Your task to perform on an android device: uninstall "NewsBreak: Local News & Alerts" Image 0: 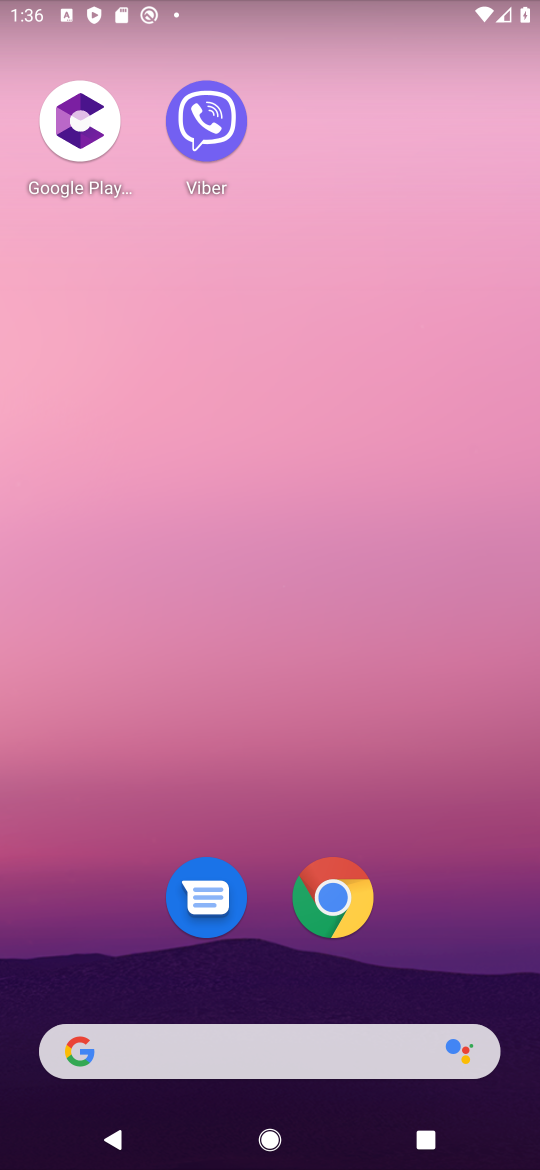
Step 0: drag from (249, 665) to (296, 123)
Your task to perform on an android device: uninstall "NewsBreak: Local News & Alerts" Image 1: 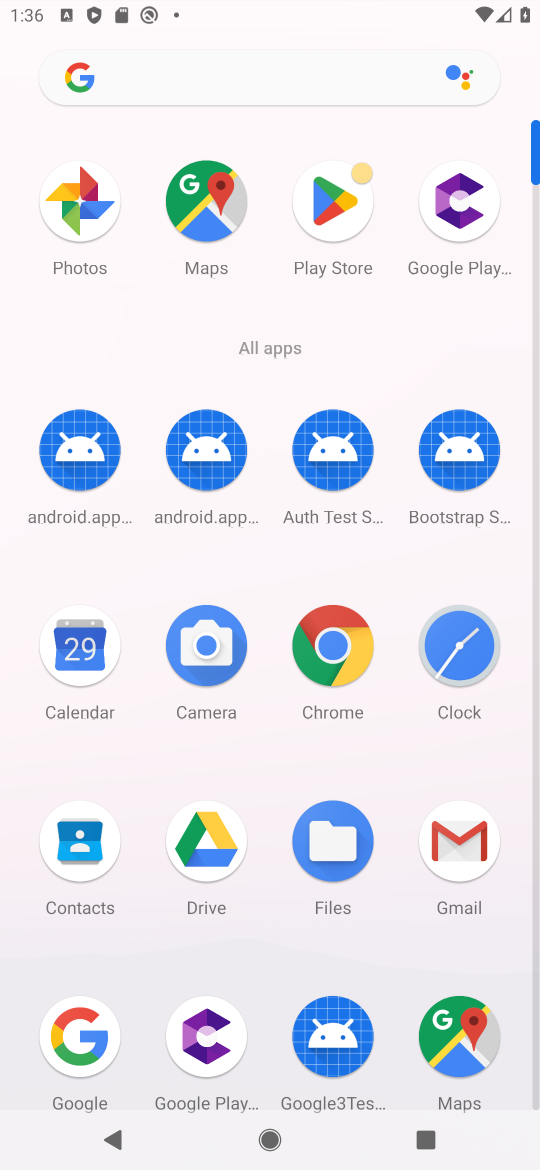
Step 1: drag from (269, 859) to (312, 123)
Your task to perform on an android device: uninstall "NewsBreak: Local News & Alerts" Image 2: 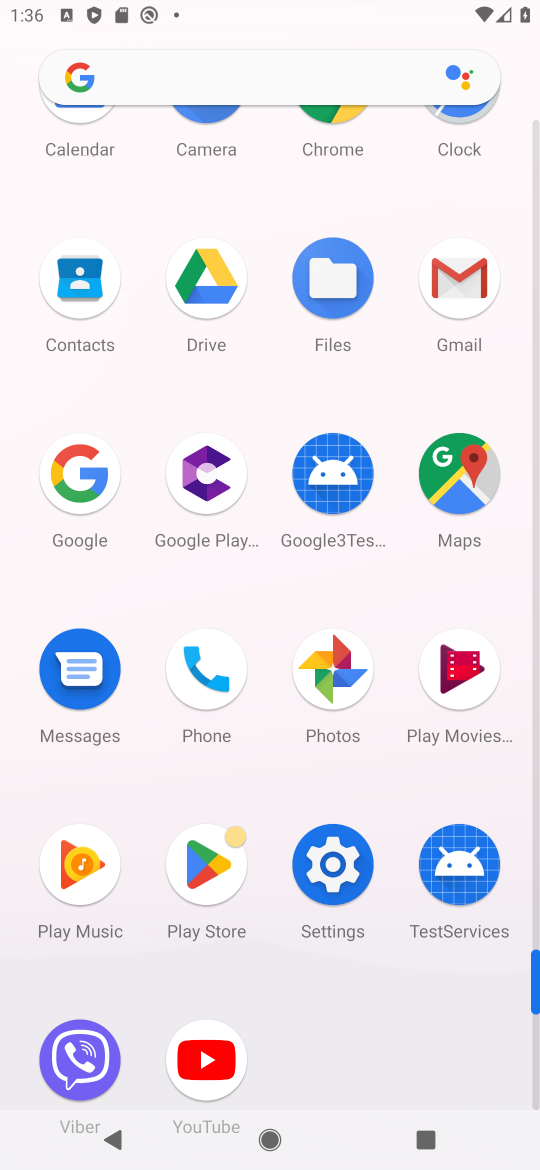
Step 2: drag from (329, 239) to (441, 1122)
Your task to perform on an android device: uninstall "NewsBreak: Local News & Alerts" Image 3: 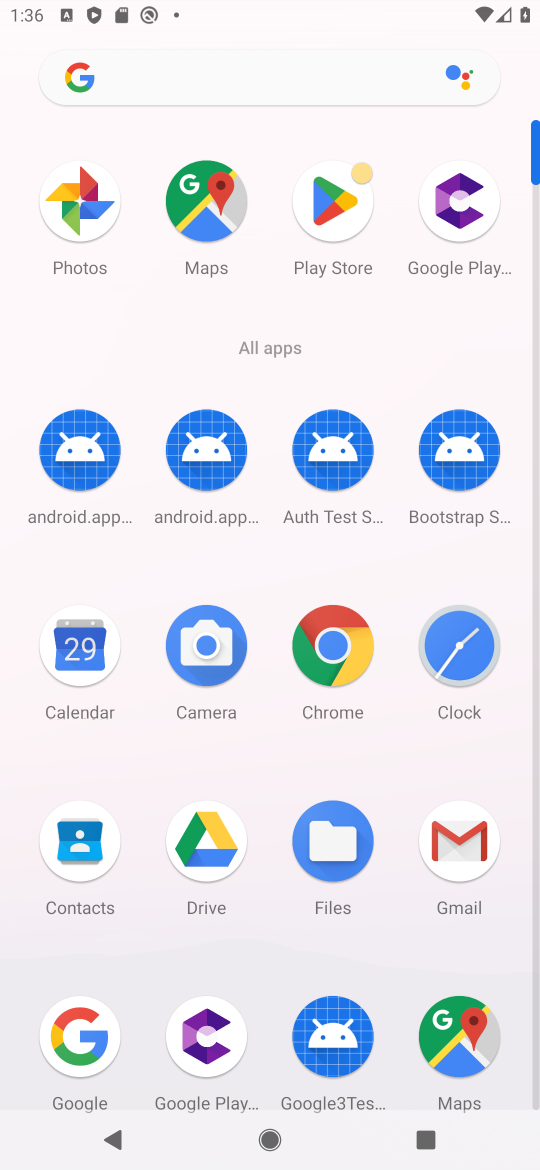
Step 3: drag from (337, 210) to (254, 498)
Your task to perform on an android device: uninstall "NewsBreak: Local News & Alerts" Image 4: 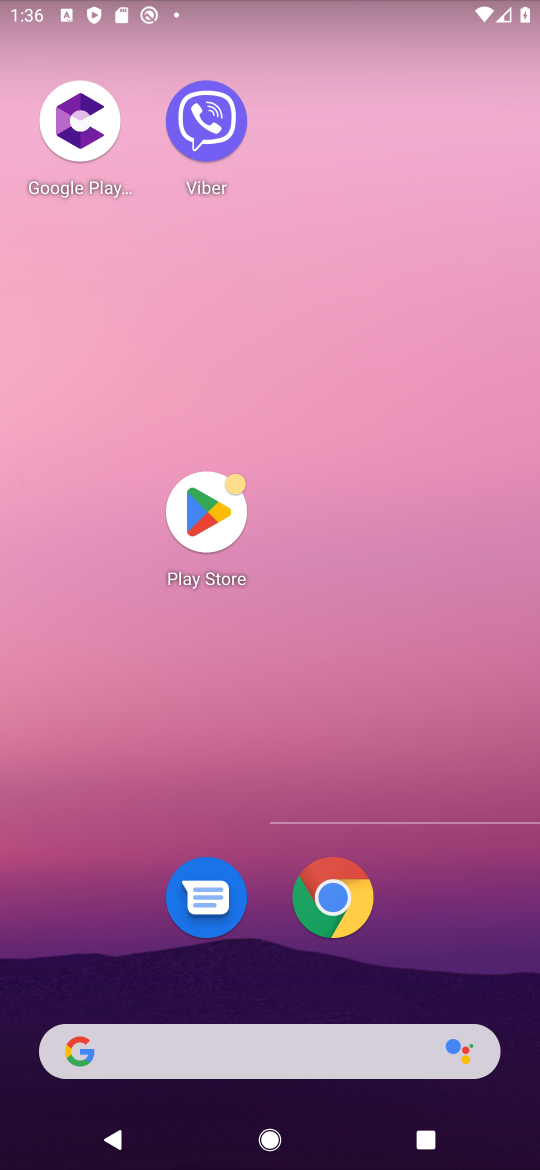
Step 4: click (201, 503)
Your task to perform on an android device: uninstall "NewsBreak: Local News & Alerts" Image 5: 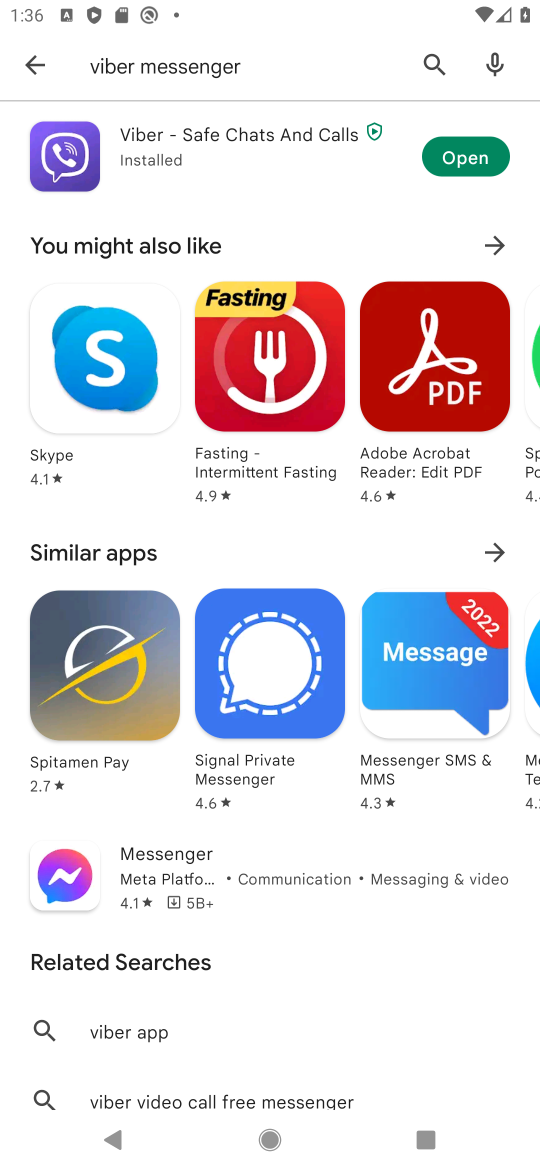
Step 5: click (285, 66)
Your task to perform on an android device: uninstall "NewsBreak: Local News & Alerts" Image 6: 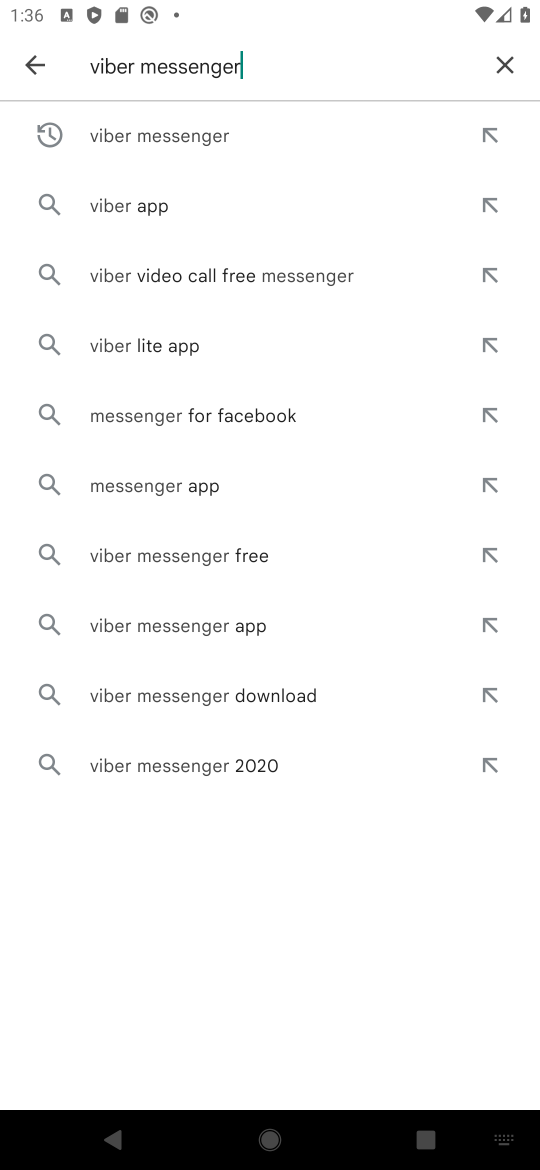
Step 6: click (499, 66)
Your task to perform on an android device: uninstall "NewsBreak: Local News & Alerts" Image 7: 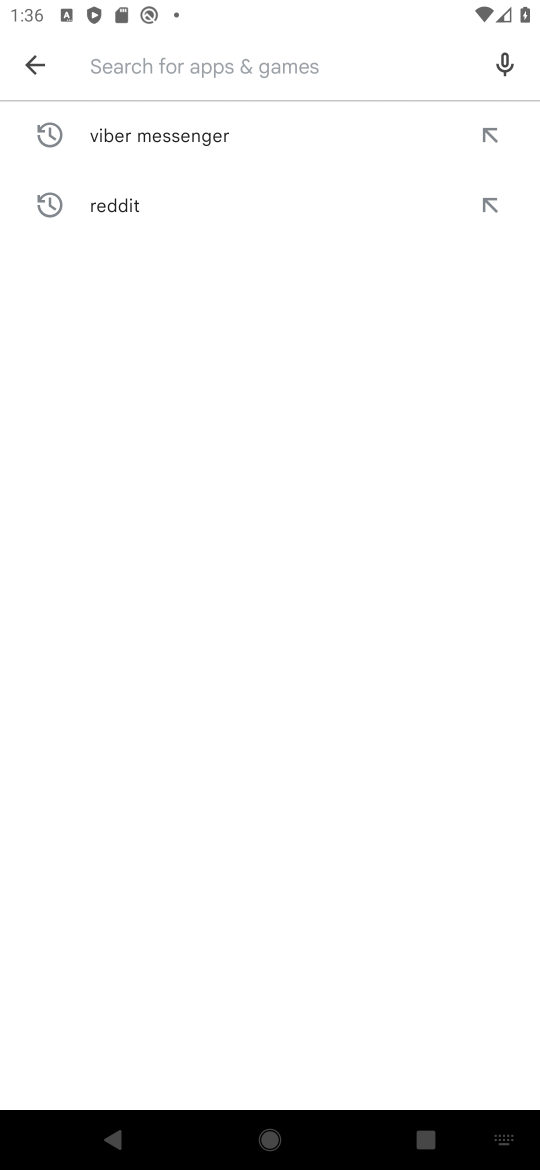
Step 7: type "newsbreak"
Your task to perform on an android device: uninstall "NewsBreak: Local News & Alerts" Image 8: 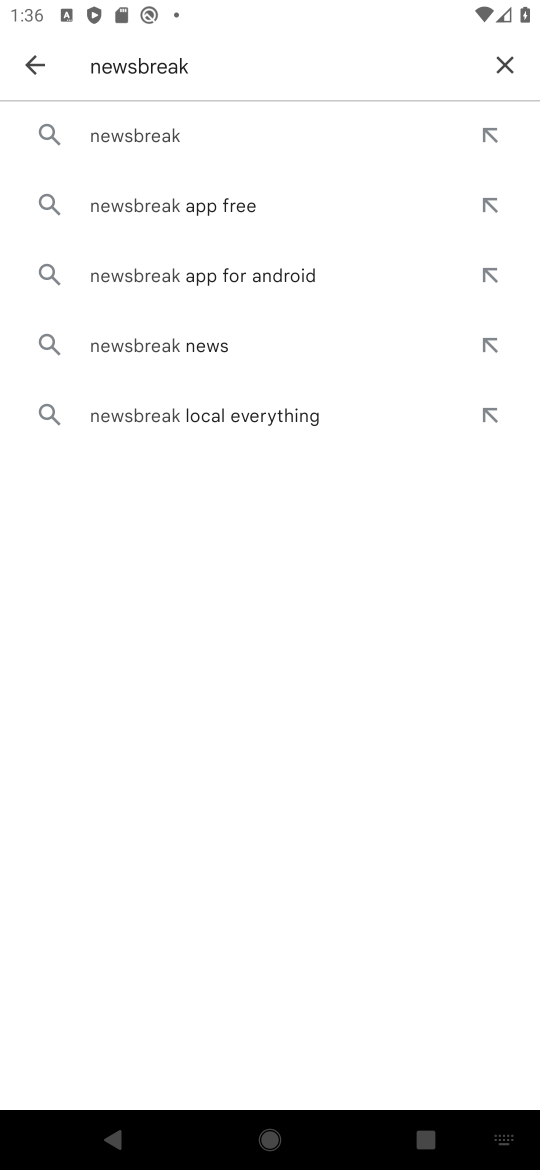
Step 8: click (161, 130)
Your task to perform on an android device: uninstall "NewsBreak: Local News & Alerts" Image 9: 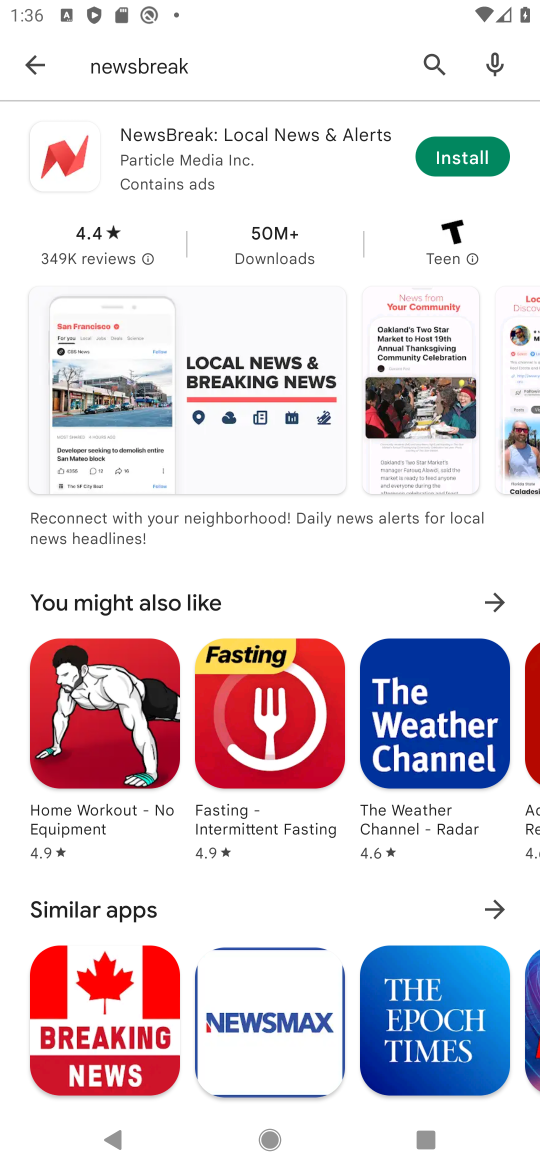
Step 9: task complete